Your task to perform on an android device: turn on notifications settings in the gmail app Image 0: 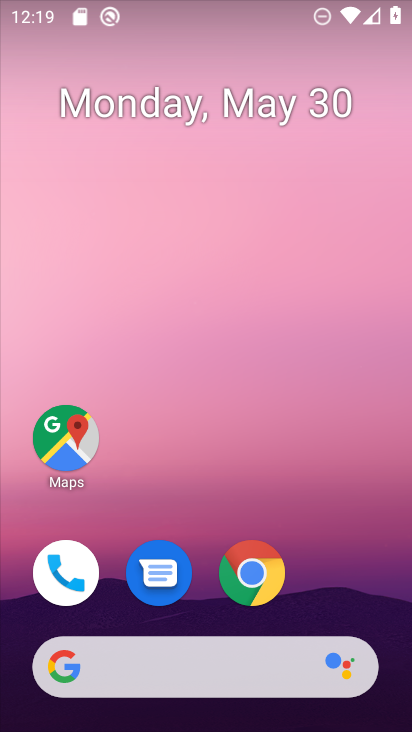
Step 0: press home button
Your task to perform on an android device: turn on notifications settings in the gmail app Image 1: 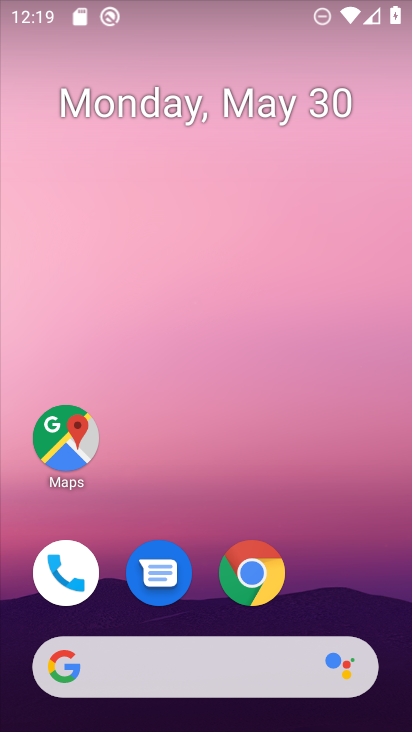
Step 1: drag from (322, 615) to (237, 84)
Your task to perform on an android device: turn on notifications settings in the gmail app Image 2: 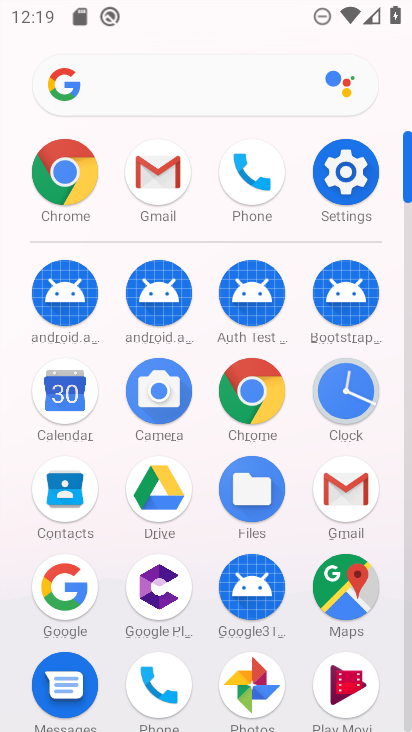
Step 2: click (170, 179)
Your task to perform on an android device: turn on notifications settings in the gmail app Image 3: 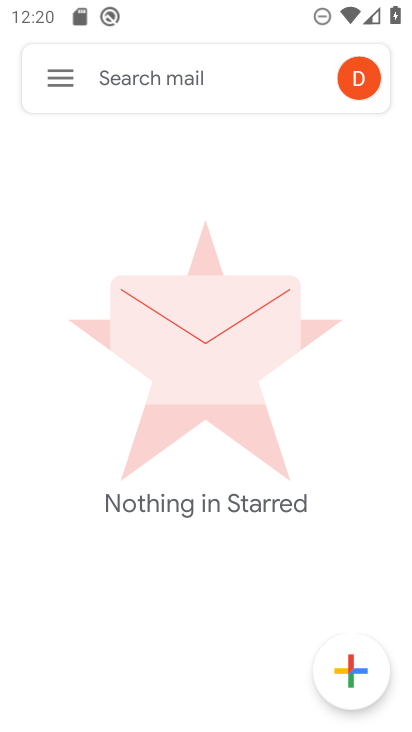
Step 3: click (67, 76)
Your task to perform on an android device: turn on notifications settings in the gmail app Image 4: 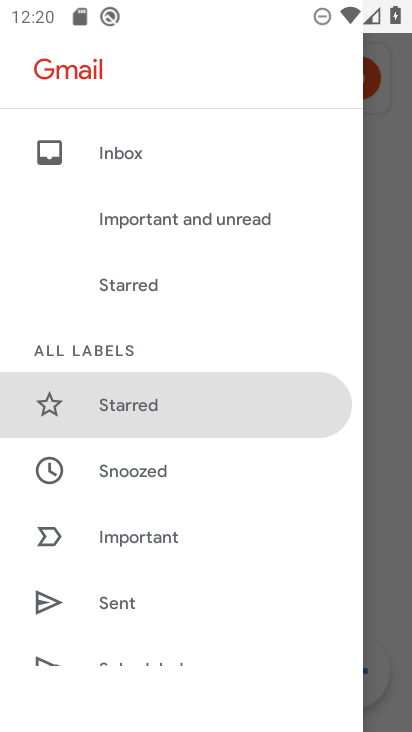
Step 4: drag from (213, 610) to (202, 168)
Your task to perform on an android device: turn on notifications settings in the gmail app Image 5: 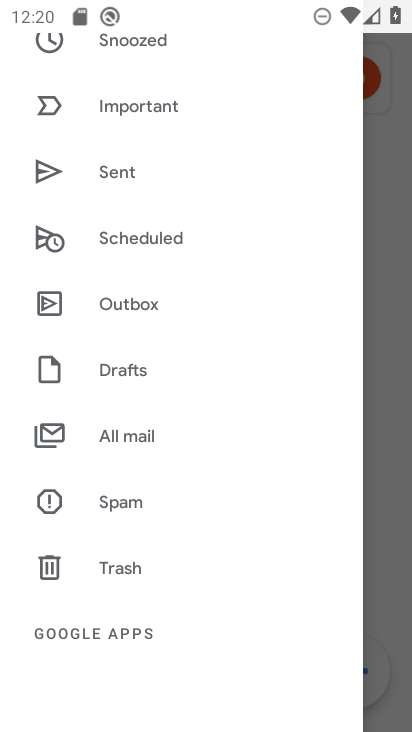
Step 5: drag from (270, 585) to (236, 10)
Your task to perform on an android device: turn on notifications settings in the gmail app Image 6: 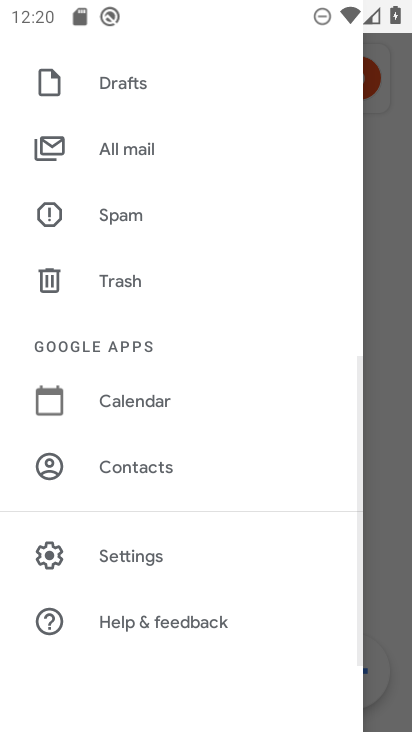
Step 6: click (135, 565)
Your task to perform on an android device: turn on notifications settings in the gmail app Image 7: 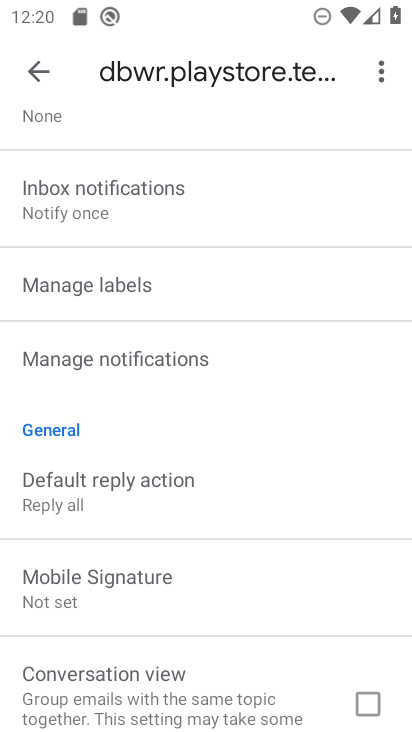
Step 7: click (123, 362)
Your task to perform on an android device: turn on notifications settings in the gmail app Image 8: 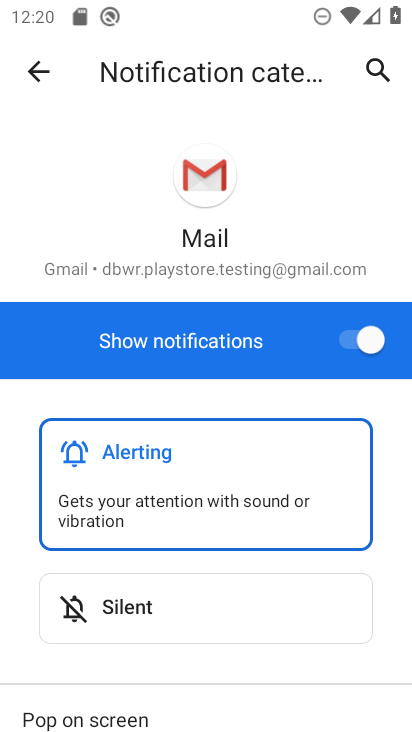
Step 8: task complete